Your task to perform on an android device: open a bookmark in the chrome app Image 0: 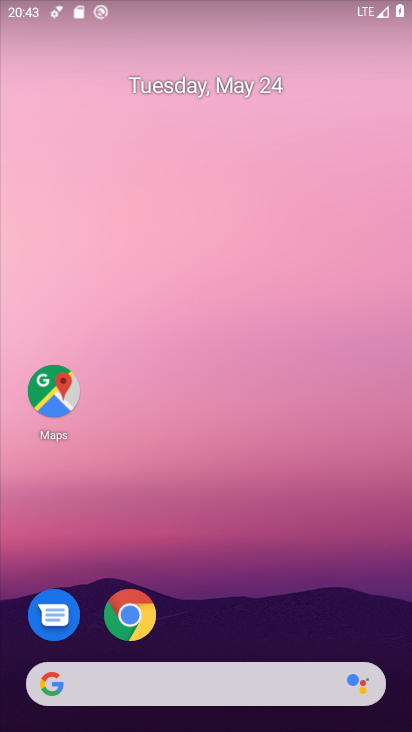
Step 0: drag from (278, 610) to (313, 160)
Your task to perform on an android device: open a bookmark in the chrome app Image 1: 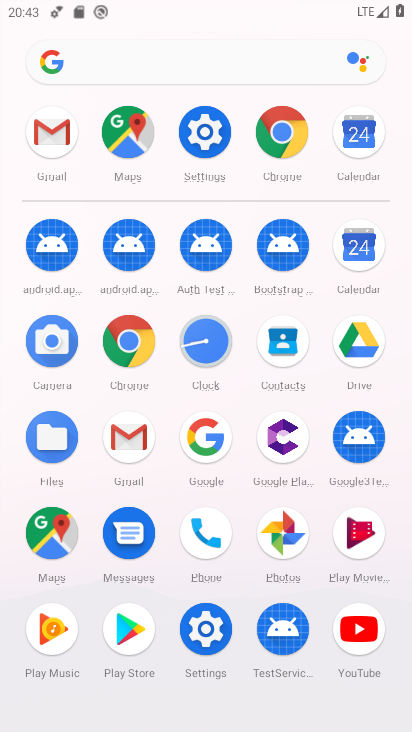
Step 1: click (134, 330)
Your task to perform on an android device: open a bookmark in the chrome app Image 2: 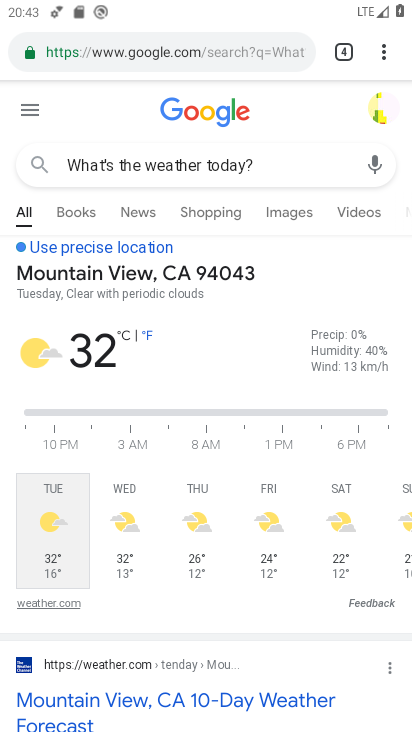
Step 2: click (387, 50)
Your task to perform on an android device: open a bookmark in the chrome app Image 3: 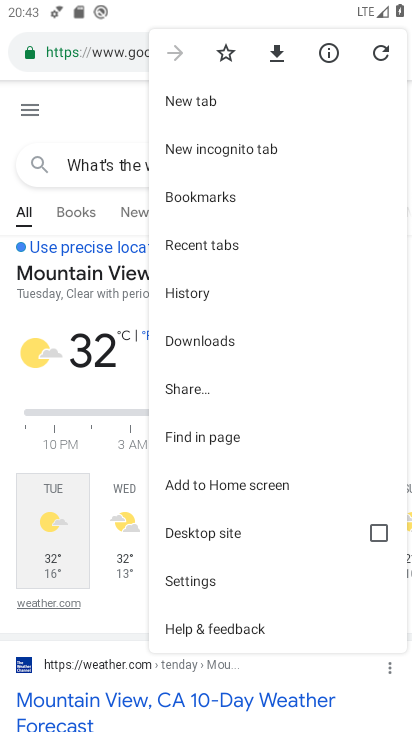
Step 3: click (225, 241)
Your task to perform on an android device: open a bookmark in the chrome app Image 4: 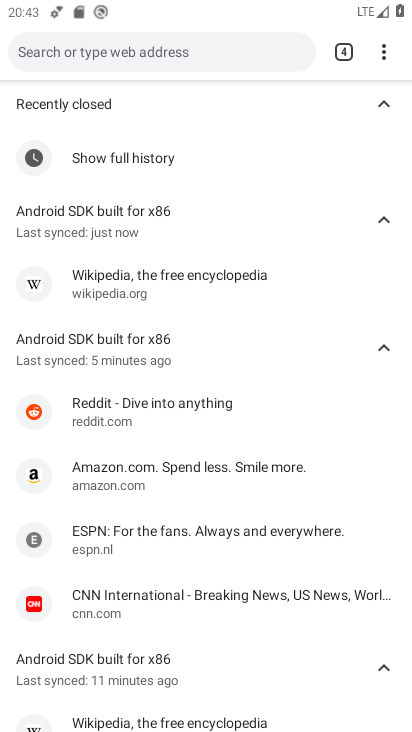
Step 4: press back button
Your task to perform on an android device: open a bookmark in the chrome app Image 5: 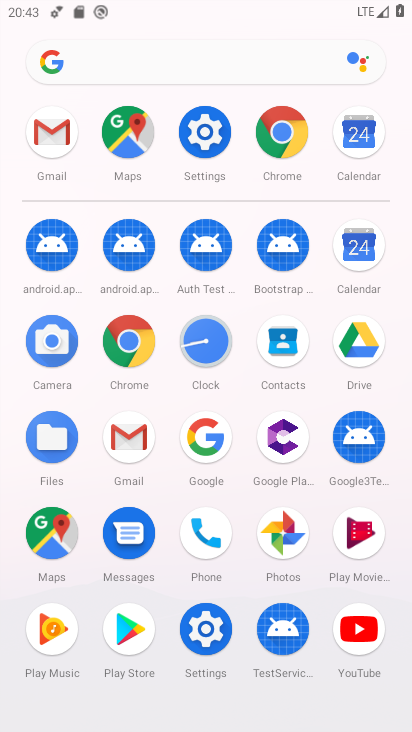
Step 5: click (284, 122)
Your task to perform on an android device: open a bookmark in the chrome app Image 6: 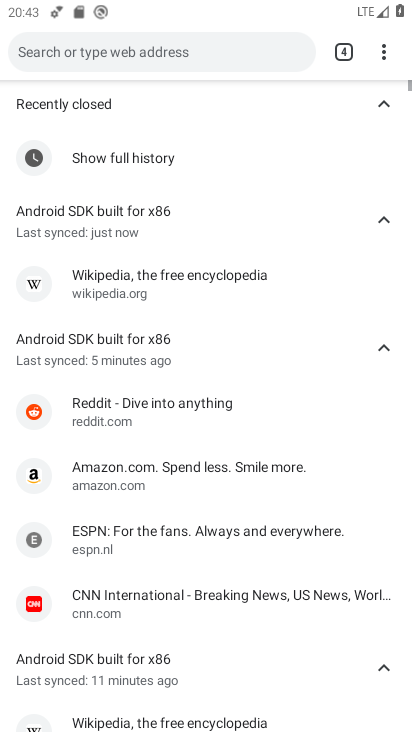
Step 6: click (378, 47)
Your task to perform on an android device: open a bookmark in the chrome app Image 7: 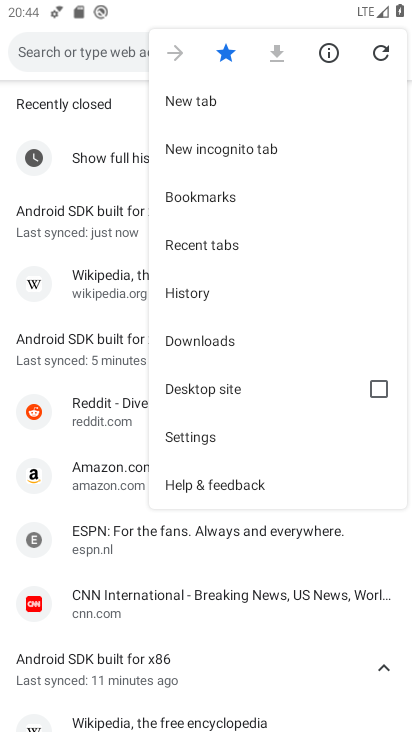
Step 7: click (217, 181)
Your task to perform on an android device: open a bookmark in the chrome app Image 8: 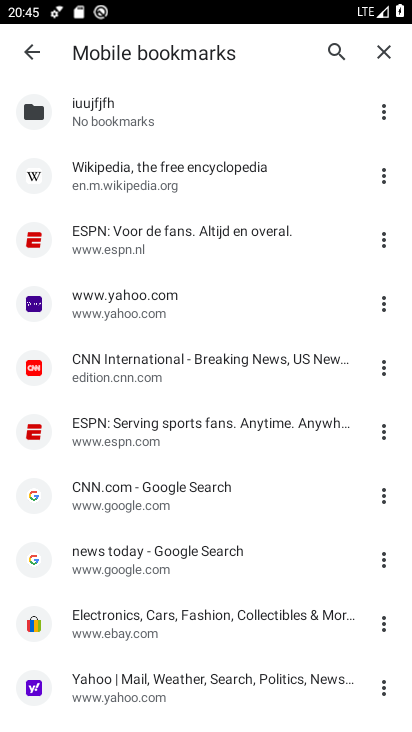
Step 8: task complete